Your task to perform on an android device: open chrome and create a bookmark for the current page Image 0: 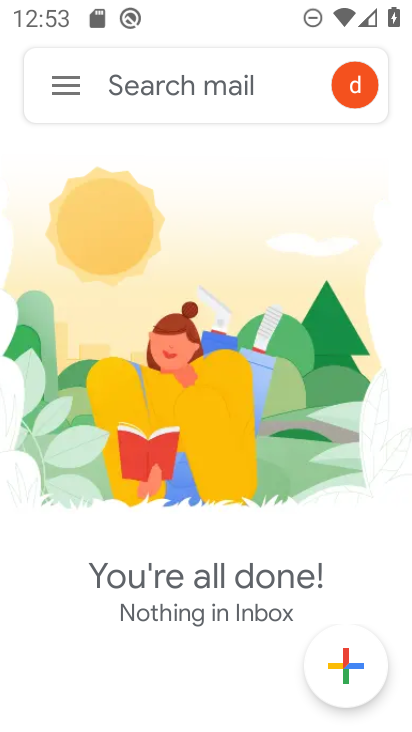
Step 0: press home button
Your task to perform on an android device: open chrome and create a bookmark for the current page Image 1: 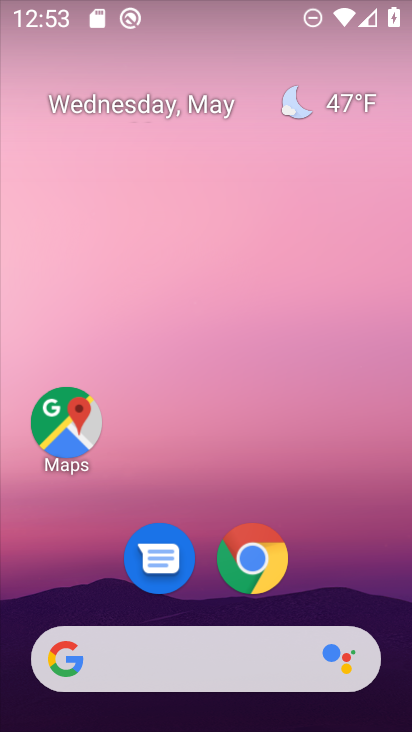
Step 1: click (259, 555)
Your task to perform on an android device: open chrome and create a bookmark for the current page Image 2: 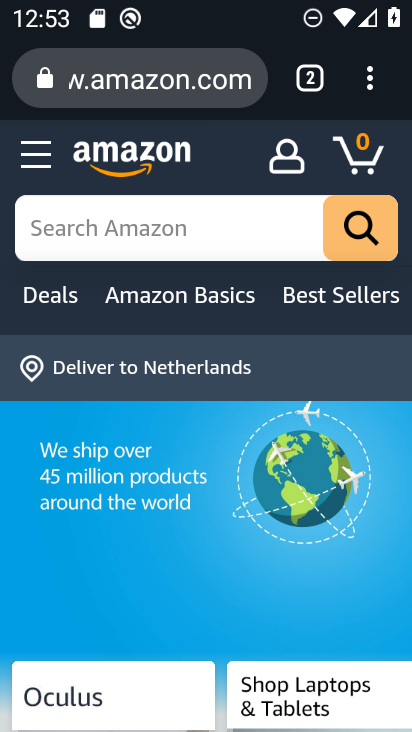
Step 2: click (372, 59)
Your task to perform on an android device: open chrome and create a bookmark for the current page Image 3: 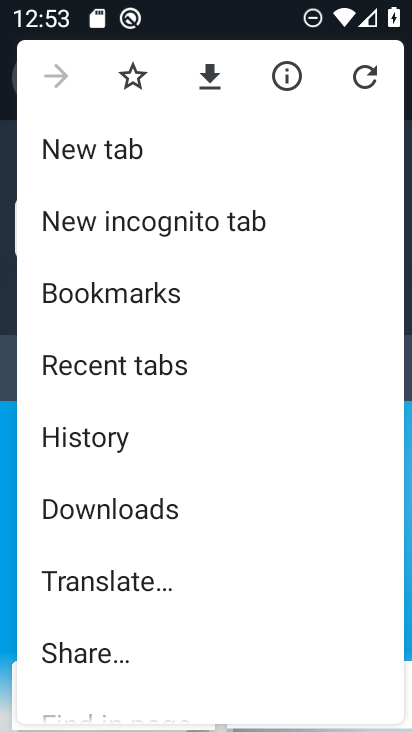
Step 3: click (132, 80)
Your task to perform on an android device: open chrome and create a bookmark for the current page Image 4: 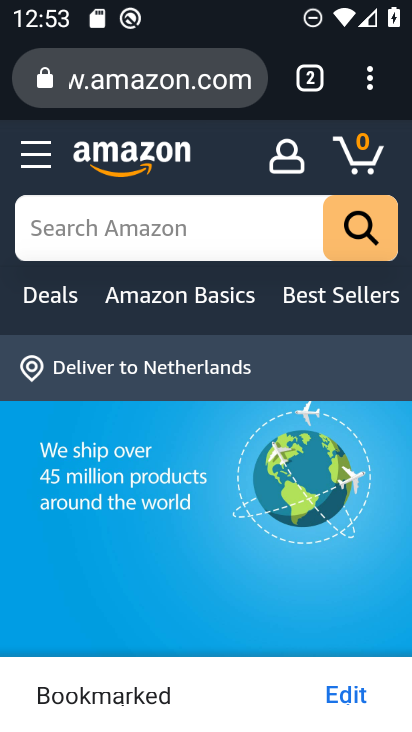
Step 4: task complete